Your task to perform on an android device: Go to Amazon Image 0: 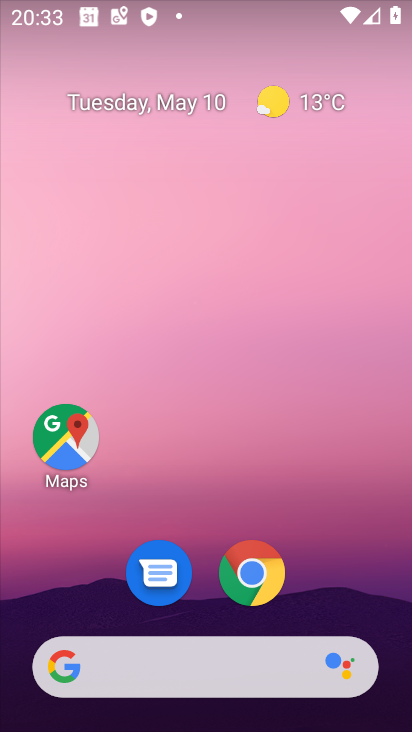
Step 0: click (253, 579)
Your task to perform on an android device: Go to Amazon Image 1: 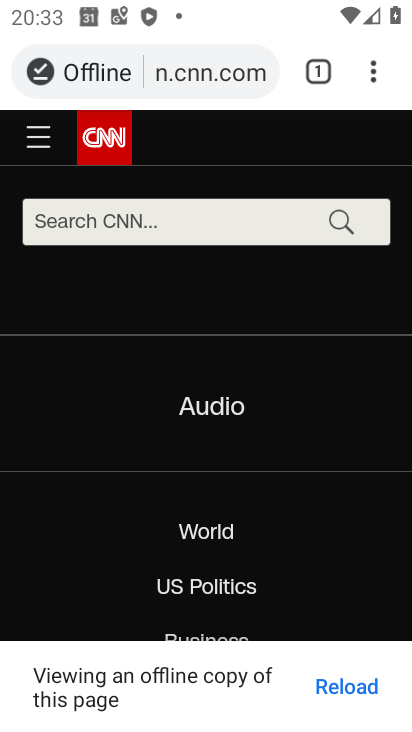
Step 1: click (164, 76)
Your task to perform on an android device: Go to Amazon Image 2: 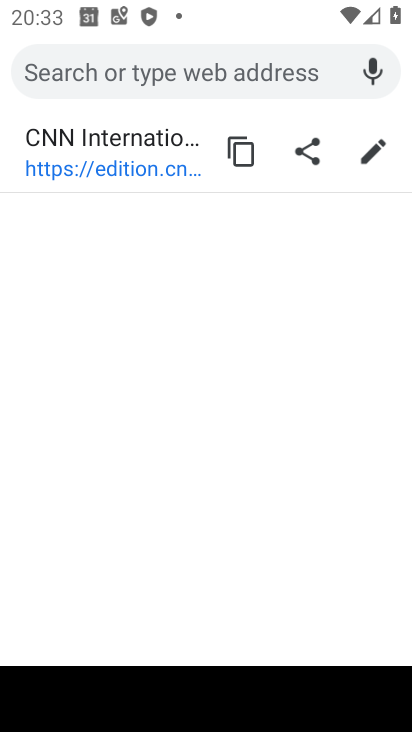
Step 2: type "amazon"
Your task to perform on an android device: Go to Amazon Image 3: 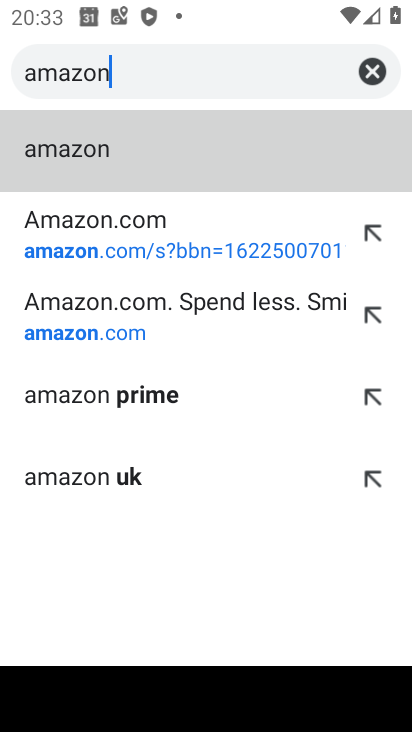
Step 3: click (68, 157)
Your task to perform on an android device: Go to Amazon Image 4: 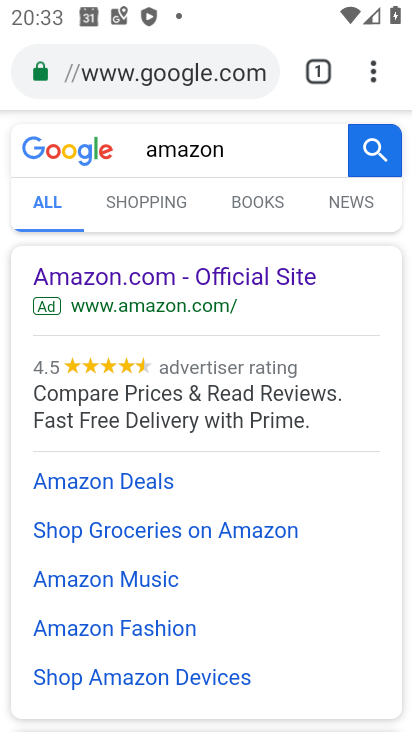
Step 4: click (86, 280)
Your task to perform on an android device: Go to Amazon Image 5: 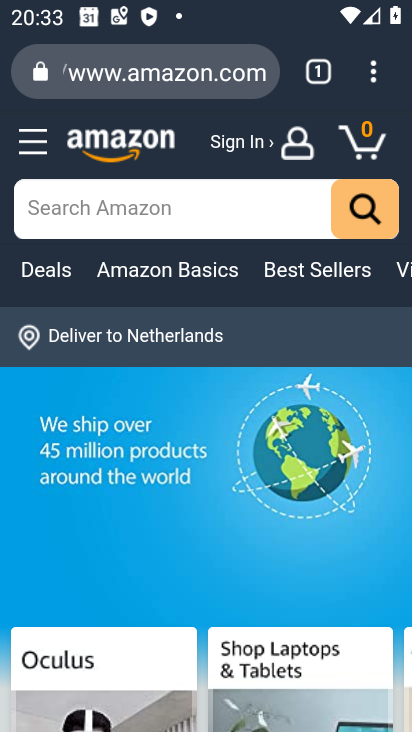
Step 5: task complete